Your task to perform on an android device: What's the news in Colombia? Image 0: 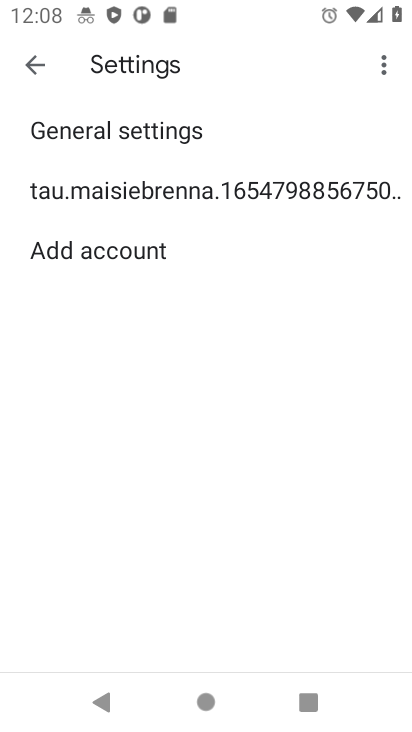
Step 0: press home button
Your task to perform on an android device: What's the news in Colombia? Image 1: 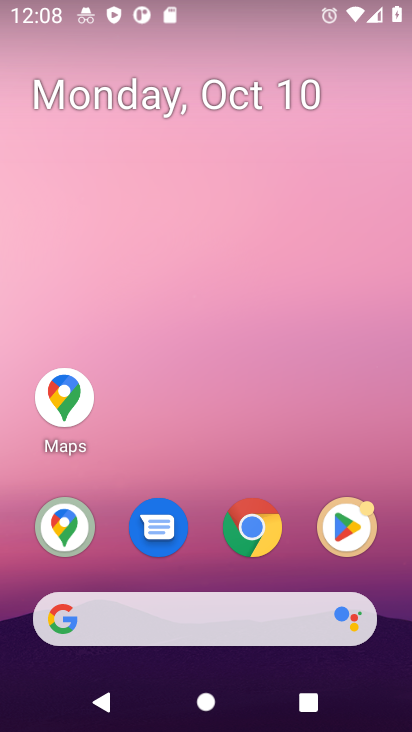
Step 1: click (257, 529)
Your task to perform on an android device: What's the news in Colombia? Image 2: 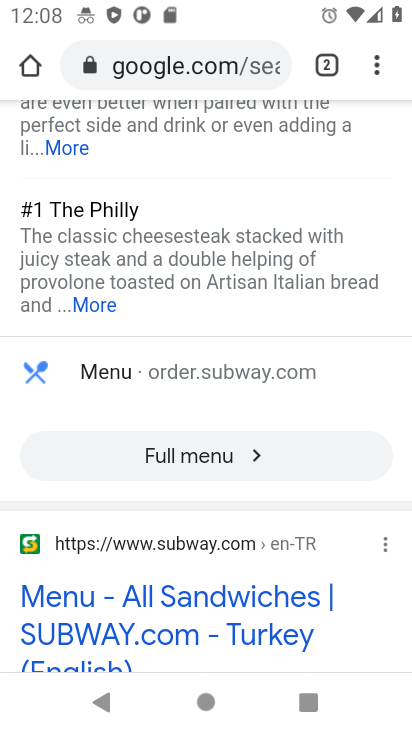
Step 2: click (180, 67)
Your task to perform on an android device: What's the news in Colombia? Image 3: 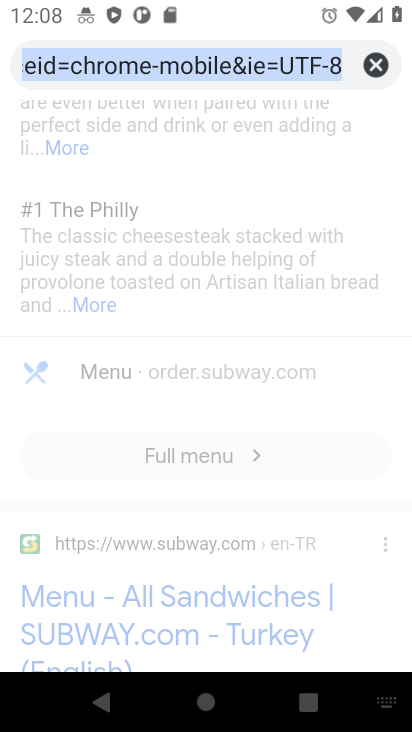
Step 3: type "What's the news in Colombia?"
Your task to perform on an android device: What's the news in Colombia? Image 4: 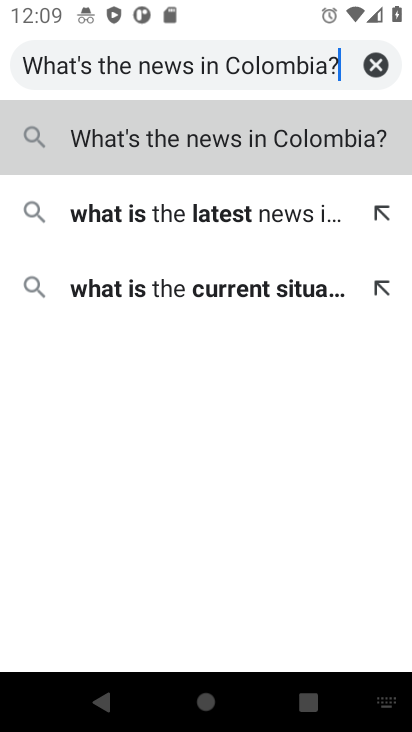
Step 4: click (156, 152)
Your task to perform on an android device: What's the news in Colombia? Image 5: 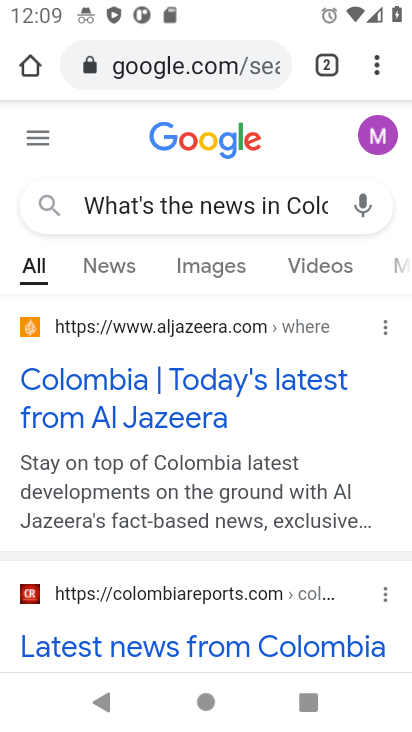
Step 5: click (216, 391)
Your task to perform on an android device: What's the news in Colombia? Image 6: 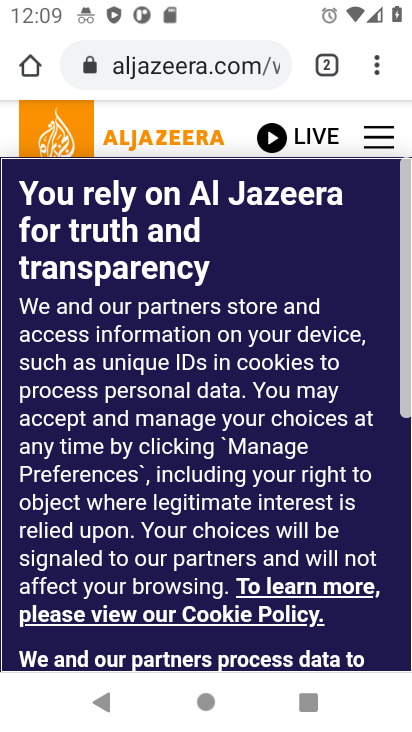
Step 6: task complete